Your task to perform on an android device: Search for sushi restaurants on Maps Image 0: 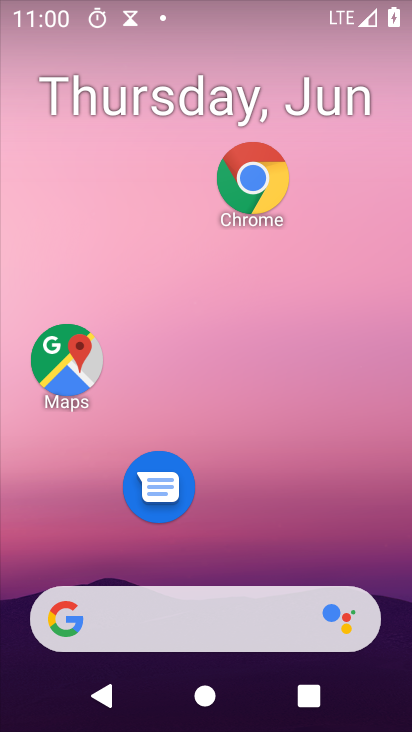
Step 0: drag from (223, 725) to (239, 56)
Your task to perform on an android device: Search for sushi restaurants on Maps Image 1: 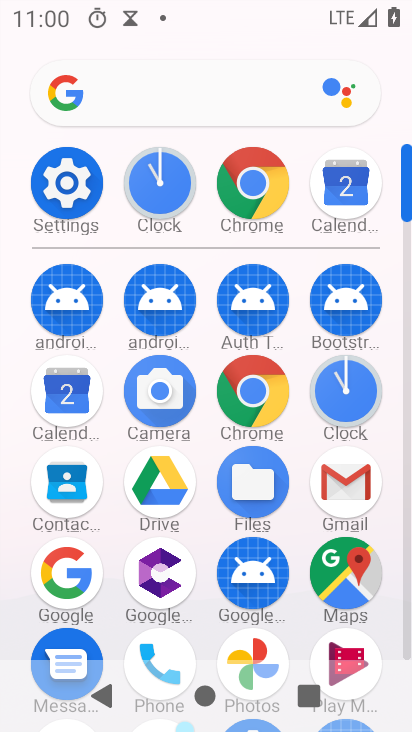
Step 1: click (342, 563)
Your task to perform on an android device: Search for sushi restaurants on Maps Image 2: 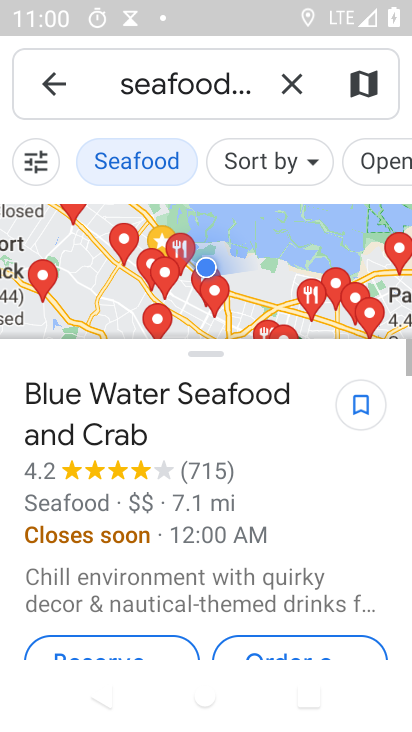
Step 2: click (286, 82)
Your task to perform on an android device: Search for sushi restaurants on Maps Image 3: 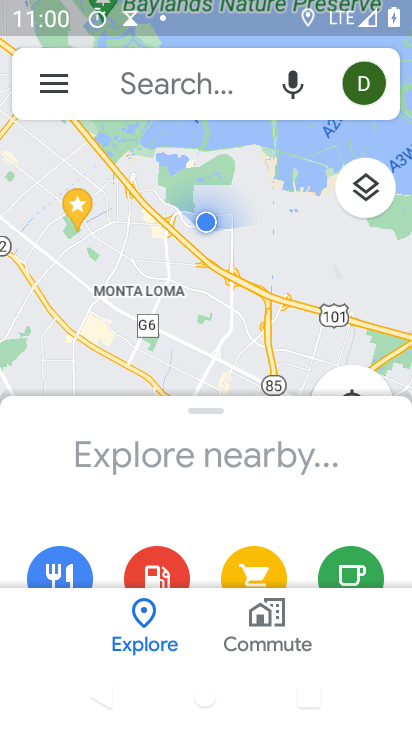
Step 3: click (163, 87)
Your task to perform on an android device: Search for sushi restaurants on Maps Image 4: 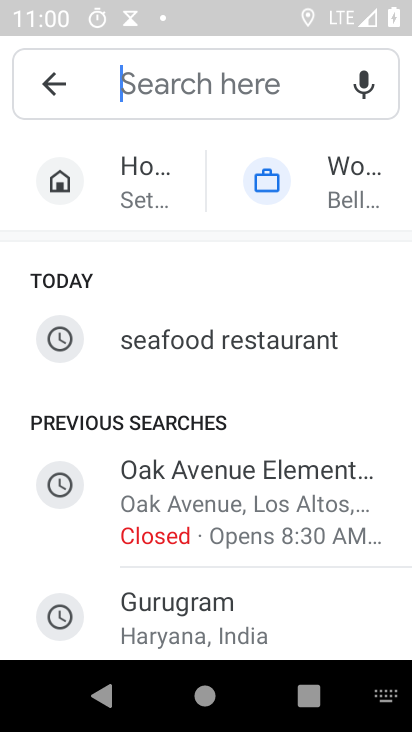
Step 4: type "sushi restaurants"
Your task to perform on an android device: Search for sushi restaurants on Maps Image 5: 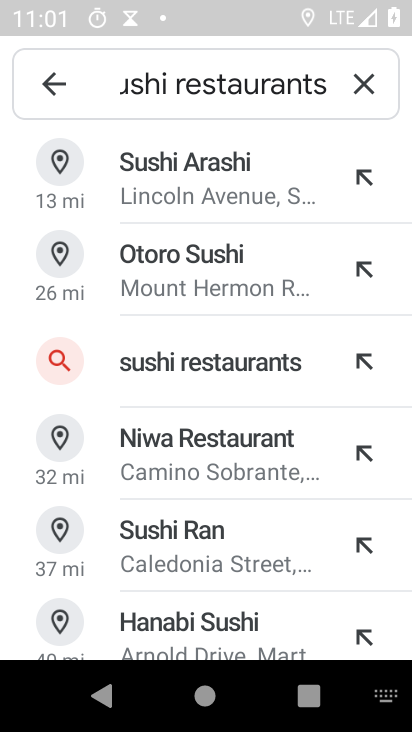
Step 5: click (189, 357)
Your task to perform on an android device: Search for sushi restaurants on Maps Image 6: 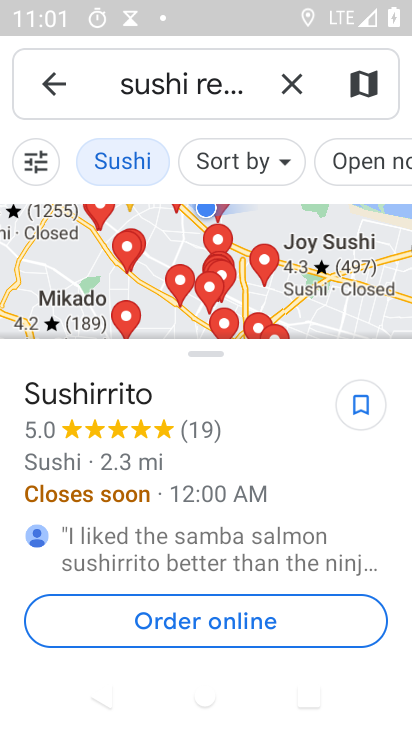
Step 6: task complete